Your task to perform on an android device: What's the weather going to be tomorrow? Image 0: 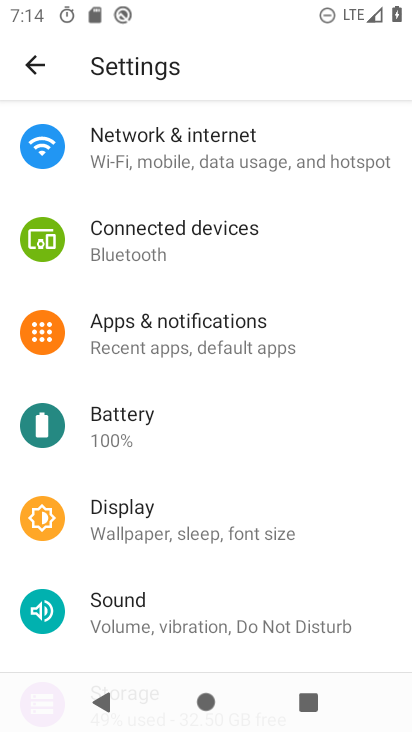
Step 0: press home button
Your task to perform on an android device: What's the weather going to be tomorrow? Image 1: 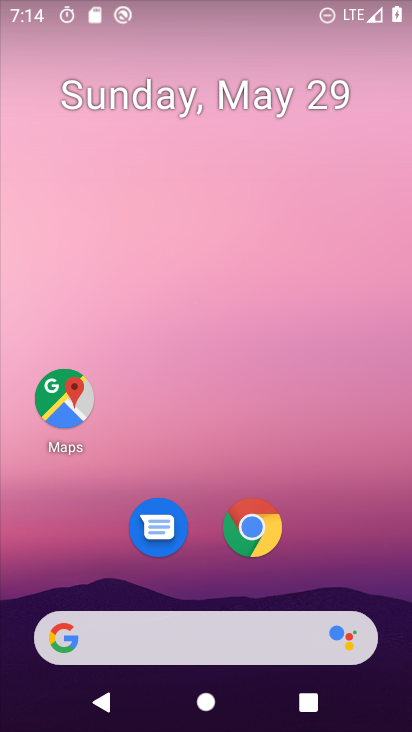
Step 1: drag from (225, 555) to (187, 44)
Your task to perform on an android device: What's the weather going to be tomorrow? Image 2: 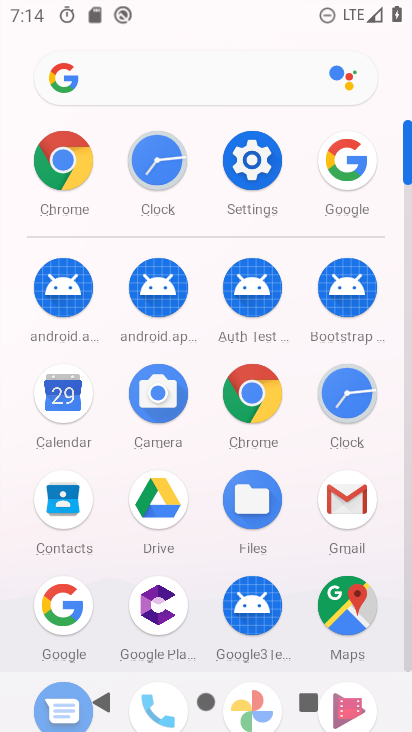
Step 2: click (61, 613)
Your task to perform on an android device: What's the weather going to be tomorrow? Image 3: 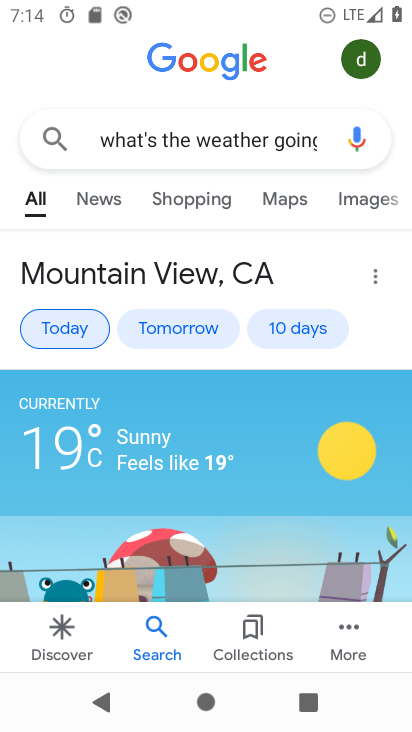
Step 3: press back button
Your task to perform on an android device: What's the weather going to be tomorrow? Image 4: 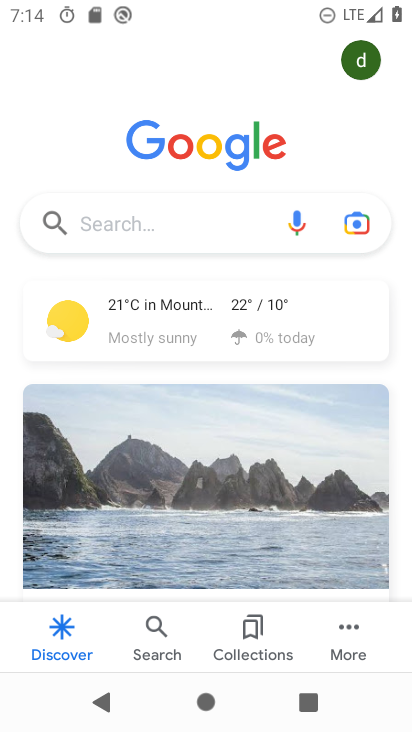
Step 4: click (145, 205)
Your task to perform on an android device: What's the weather going to be tomorrow? Image 5: 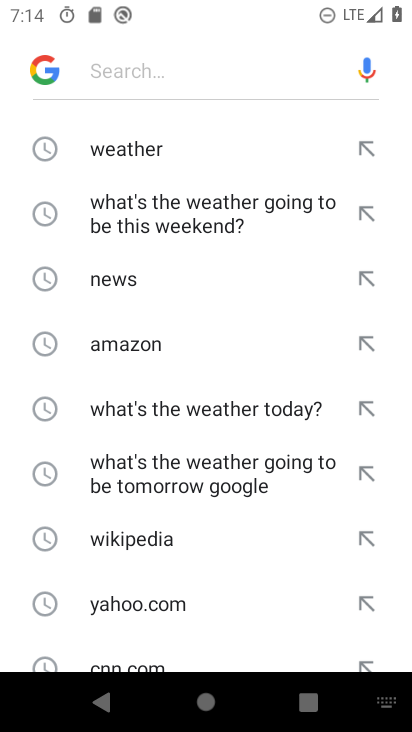
Step 5: drag from (150, 529) to (165, 164)
Your task to perform on an android device: What's the weather going to be tomorrow? Image 6: 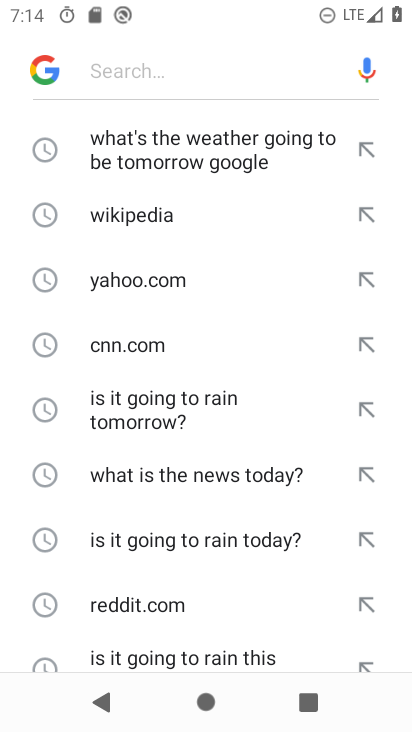
Step 6: drag from (155, 625) to (177, 152)
Your task to perform on an android device: What's the weather going to be tomorrow? Image 7: 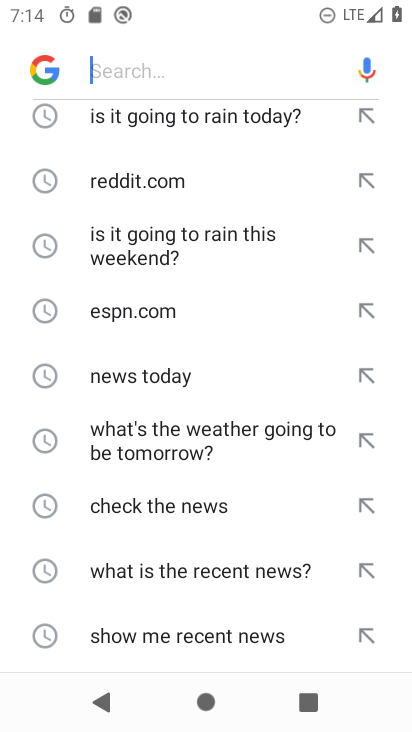
Step 7: click (193, 445)
Your task to perform on an android device: What's the weather going to be tomorrow? Image 8: 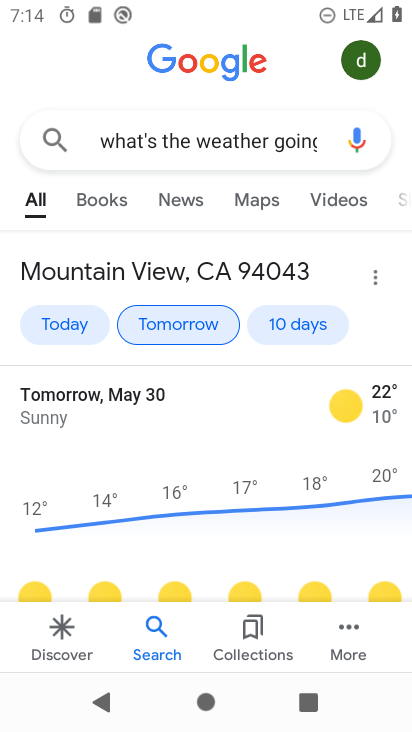
Step 8: task complete